Your task to perform on an android device: toggle priority inbox in the gmail app Image 0: 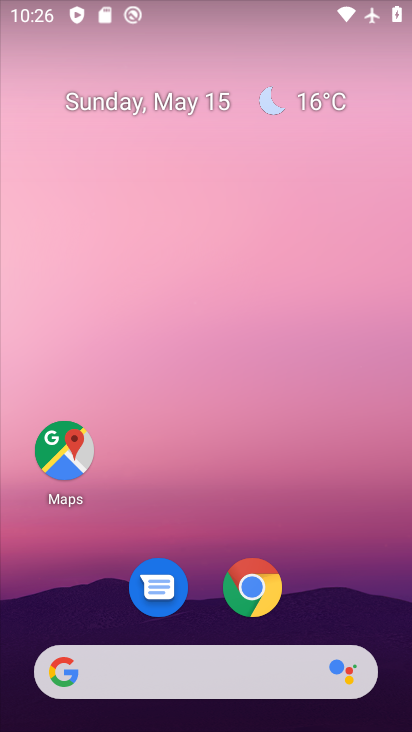
Step 0: drag from (318, 577) to (282, 39)
Your task to perform on an android device: toggle priority inbox in the gmail app Image 1: 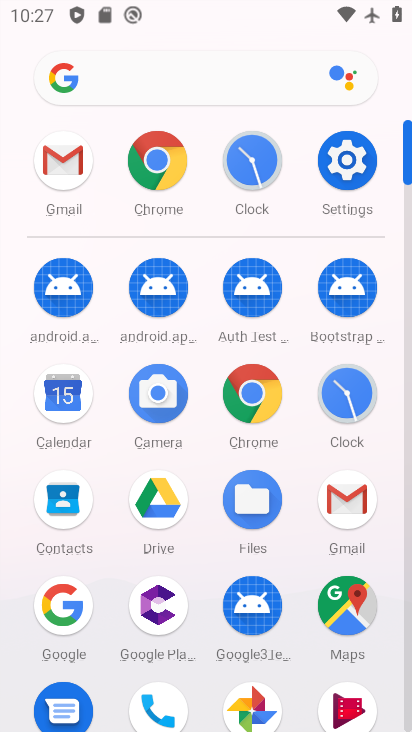
Step 1: click (58, 153)
Your task to perform on an android device: toggle priority inbox in the gmail app Image 2: 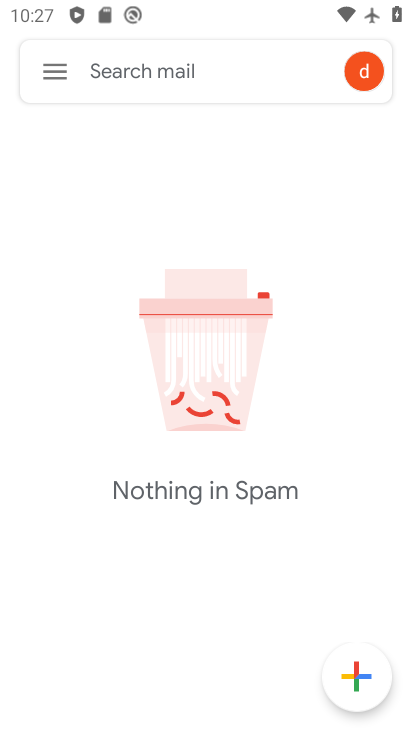
Step 2: click (49, 58)
Your task to perform on an android device: toggle priority inbox in the gmail app Image 3: 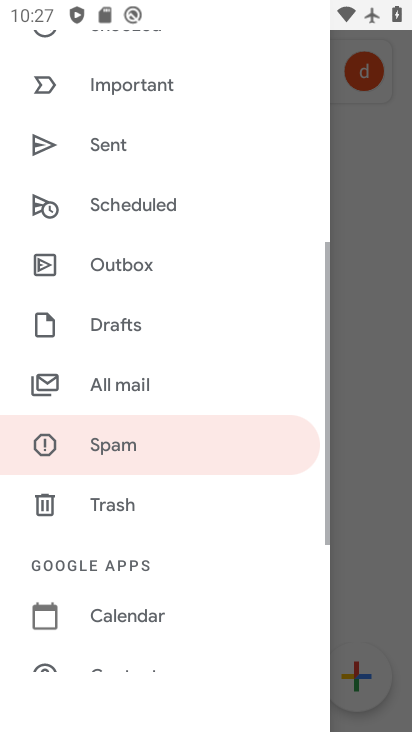
Step 3: drag from (185, 588) to (215, 179)
Your task to perform on an android device: toggle priority inbox in the gmail app Image 4: 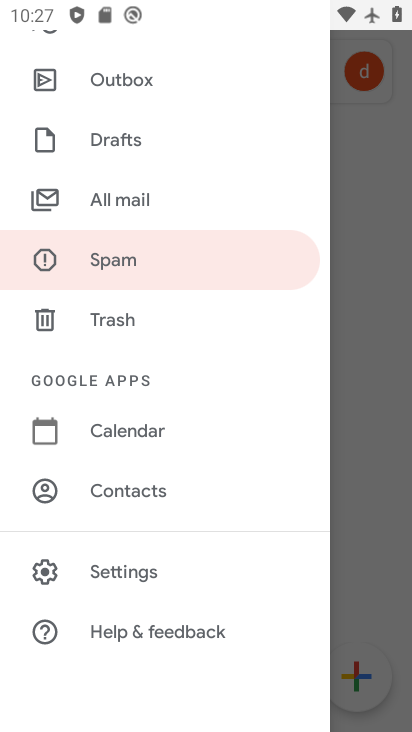
Step 4: click (108, 566)
Your task to perform on an android device: toggle priority inbox in the gmail app Image 5: 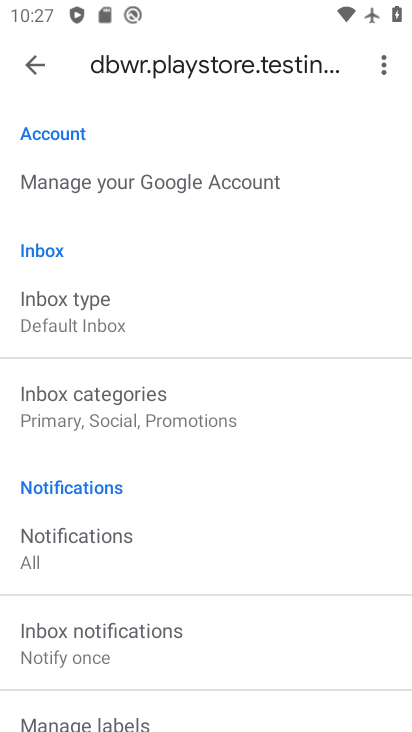
Step 5: click (131, 313)
Your task to perform on an android device: toggle priority inbox in the gmail app Image 6: 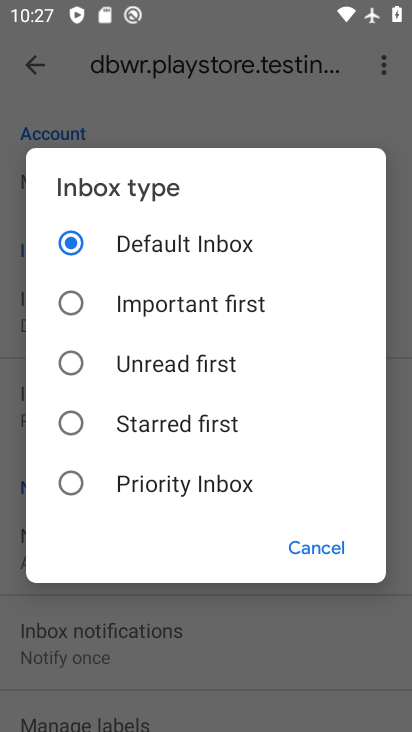
Step 6: click (132, 472)
Your task to perform on an android device: toggle priority inbox in the gmail app Image 7: 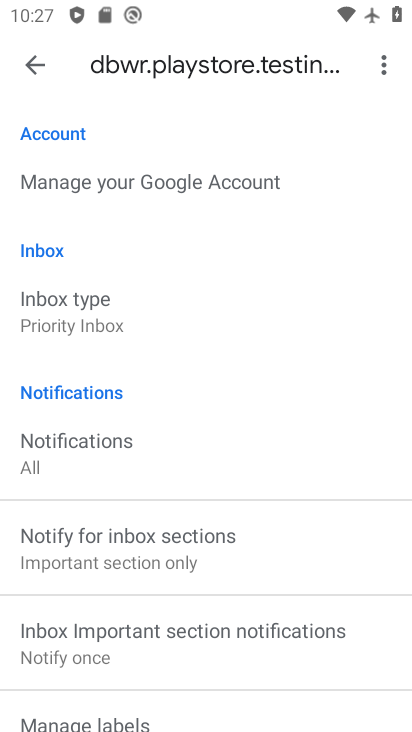
Step 7: task complete